Your task to perform on an android device: Clear all items from cart on amazon.com. Image 0: 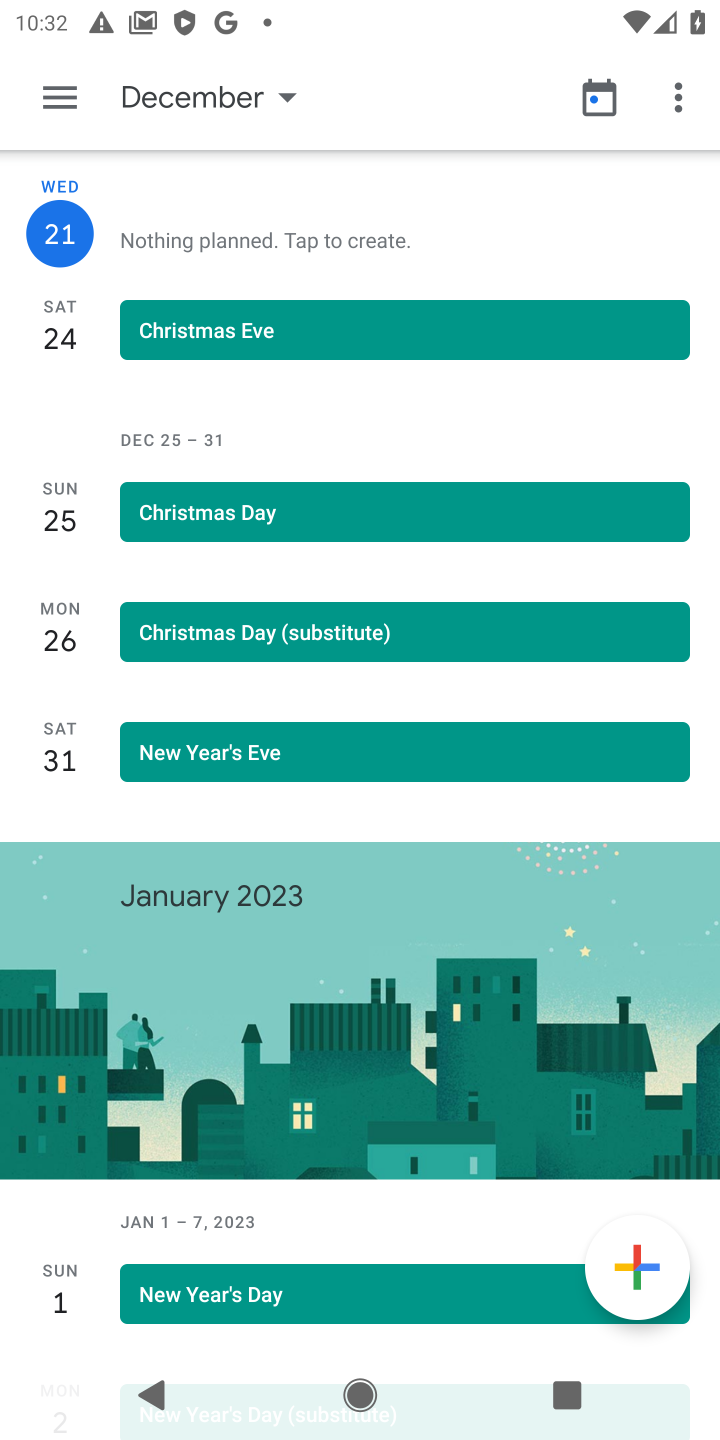
Step 0: press home button
Your task to perform on an android device: Clear all items from cart on amazon.com. Image 1: 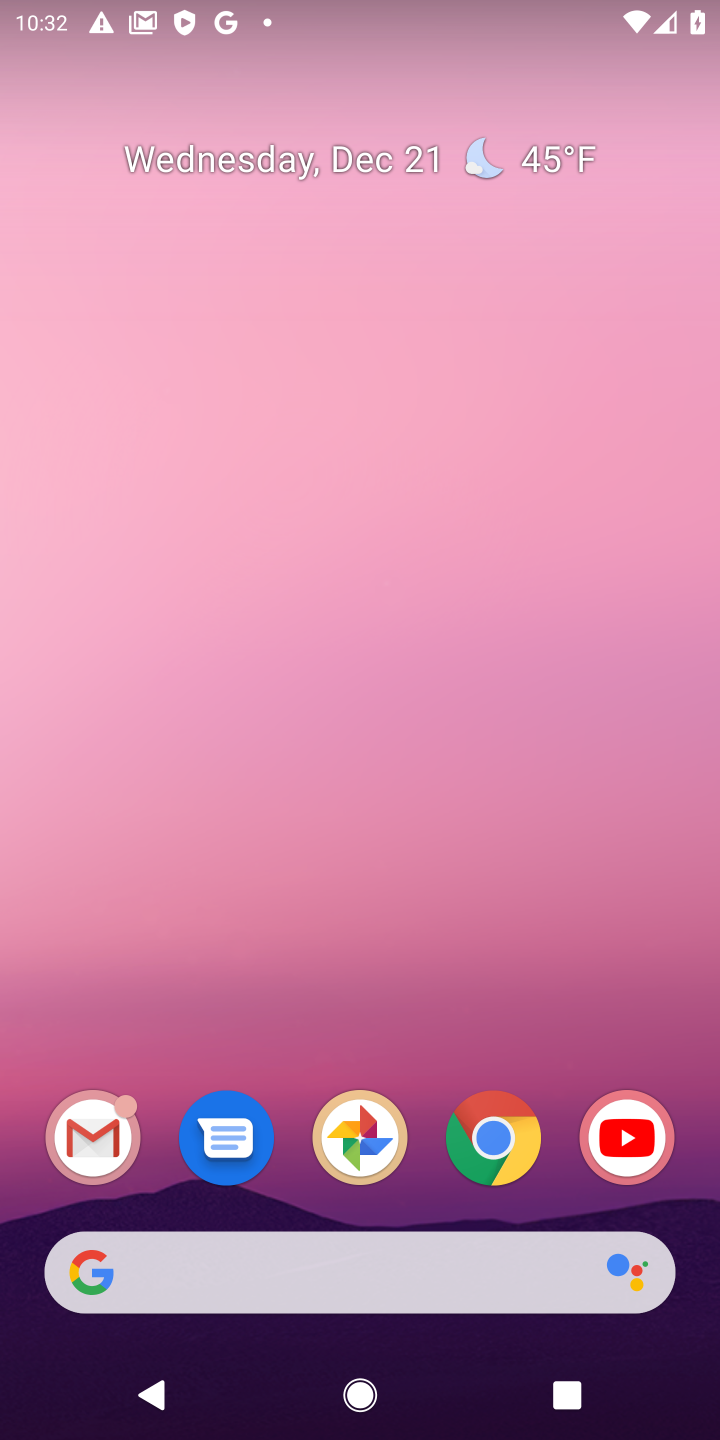
Step 1: click (500, 1141)
Your task to perform on an android device: Clear all items from cart on amazon.com. Image 2: 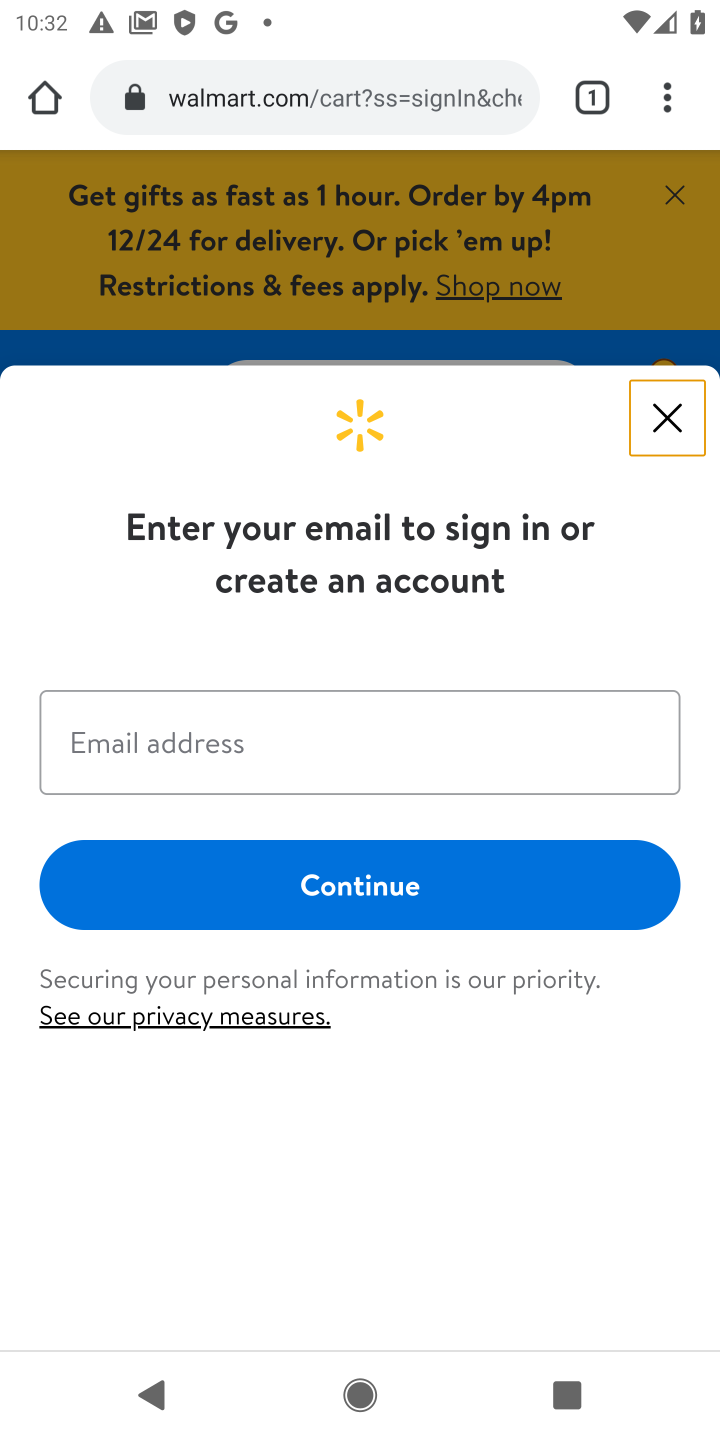
Step 2: click (219, 105)
Your task to perform on an android device: Clear all items from cart on amazon.com. Image 3: 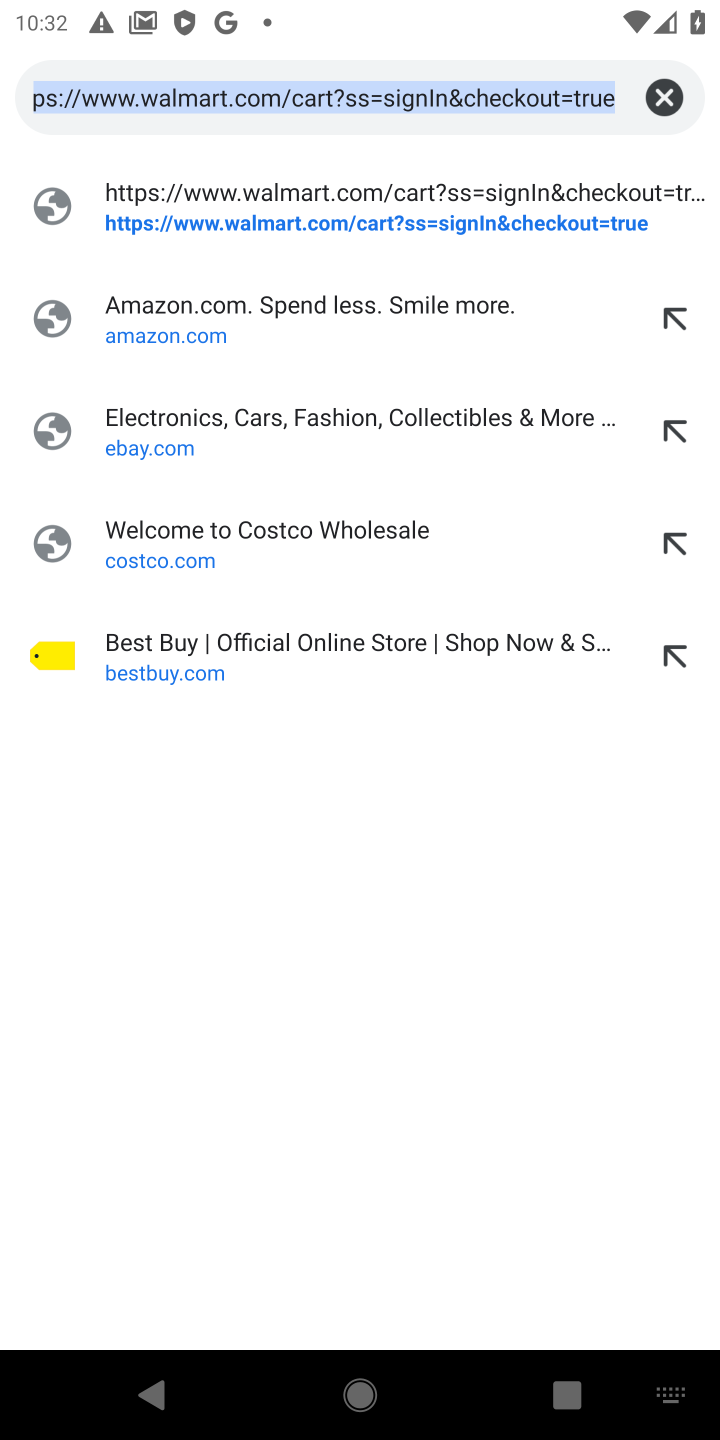
Step 3: click (157, 316)
Your task to perform on an android device: Clear all items from cart on amazon.com. Image 4: 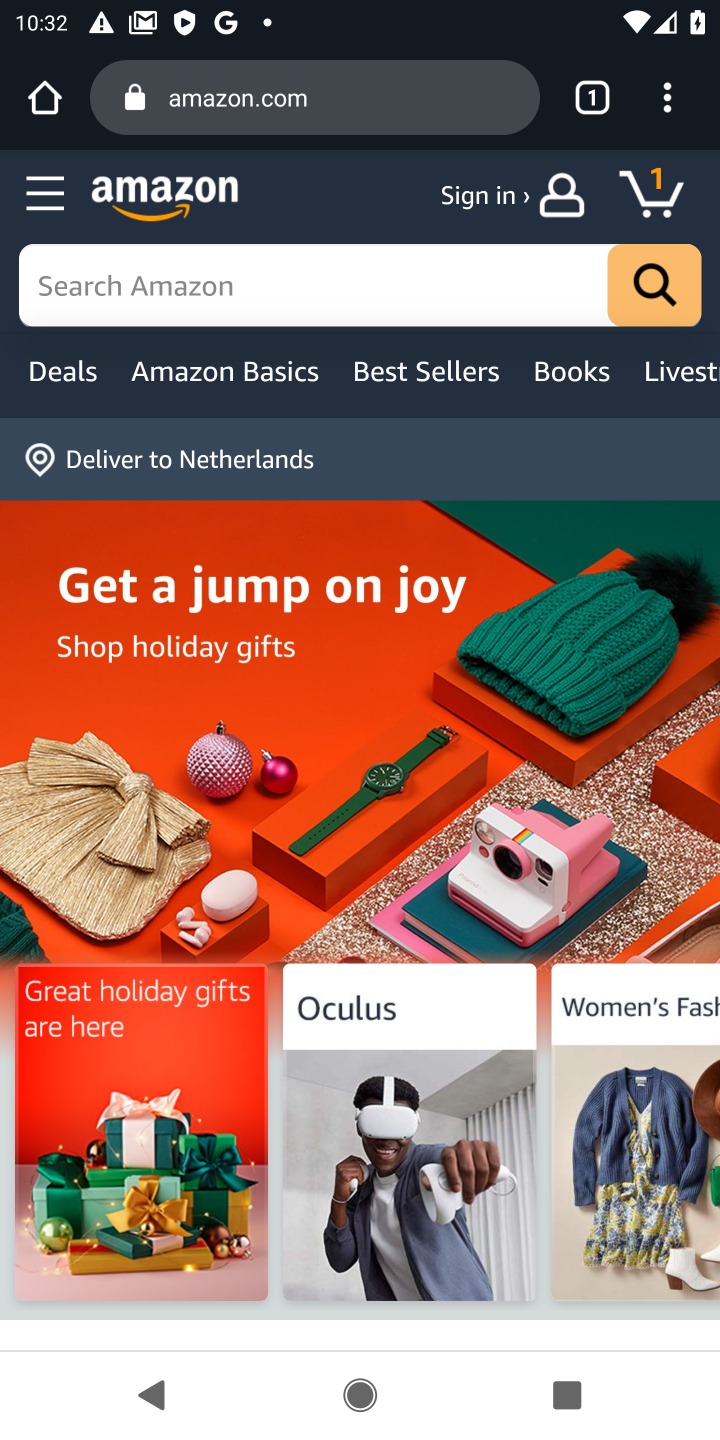
Step 4: click (650, 195)
Your task to perform on an android device: Clear all items from cart on amazon.com. Image 5: 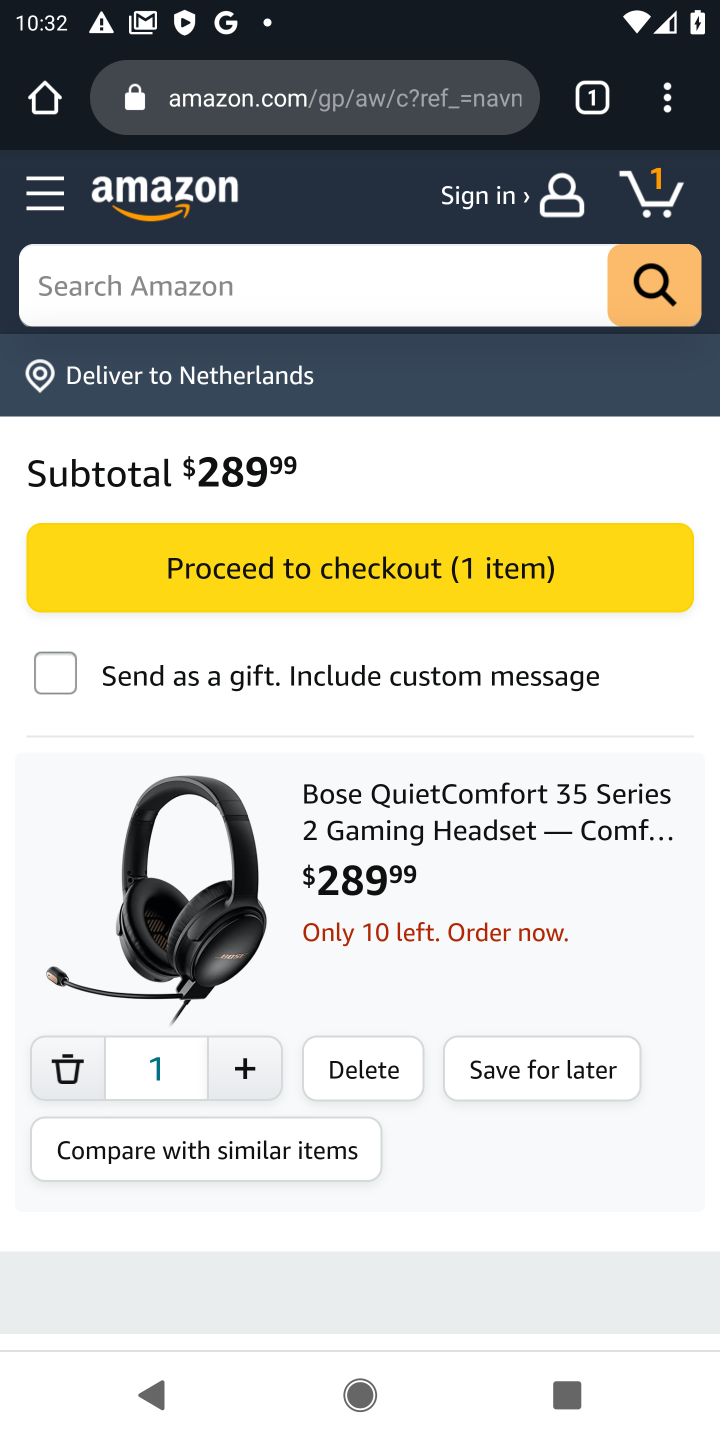
Step 5: click (69, 1061)
Your task to perform on an android device: Clear all items from cart on amazon.com. Image 6: 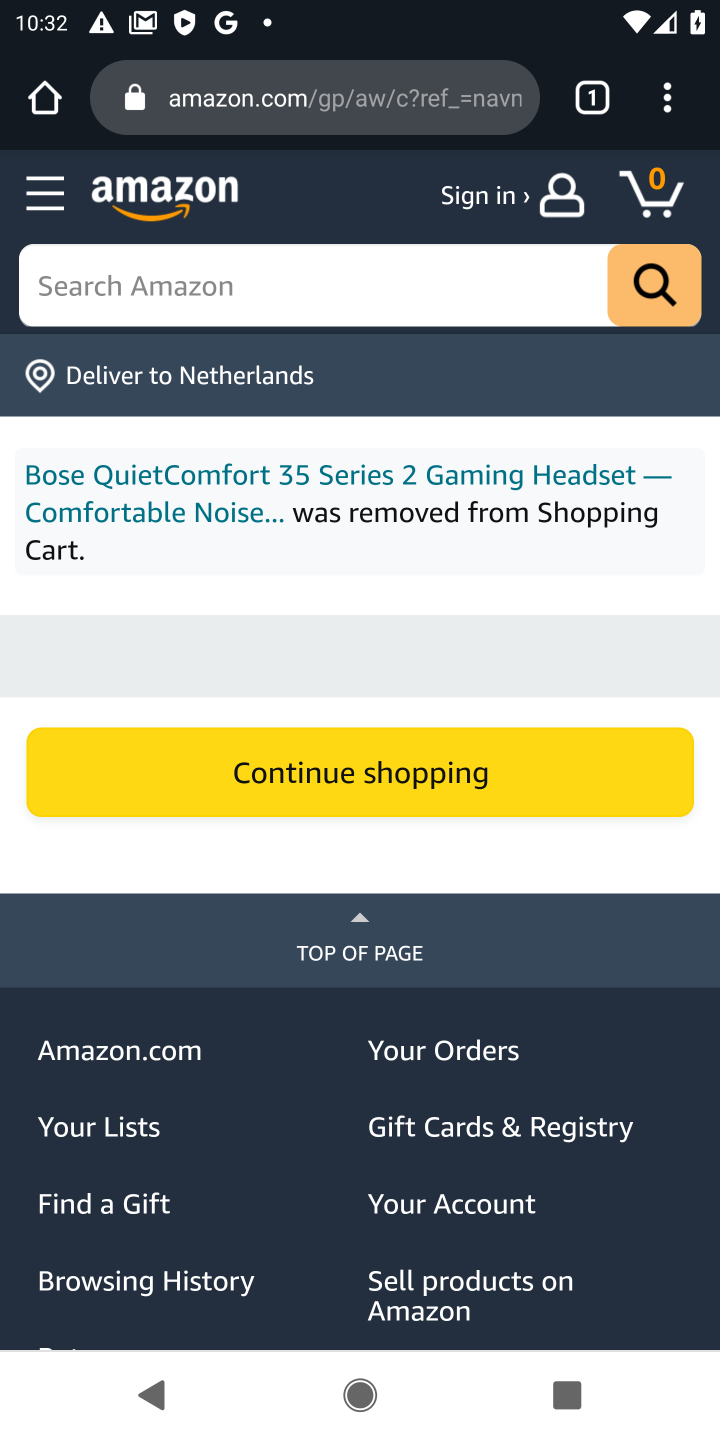
Step 6: task complete